Your task to perform on an android device: toggle priority inbox in the gmail app Image 0: 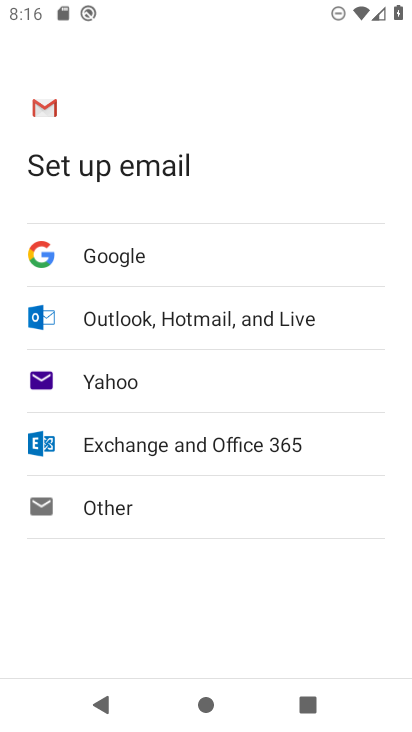
Step 0: press home button
Your task to perform on an android device: toggle priority inbox in the gmail app Image 1: 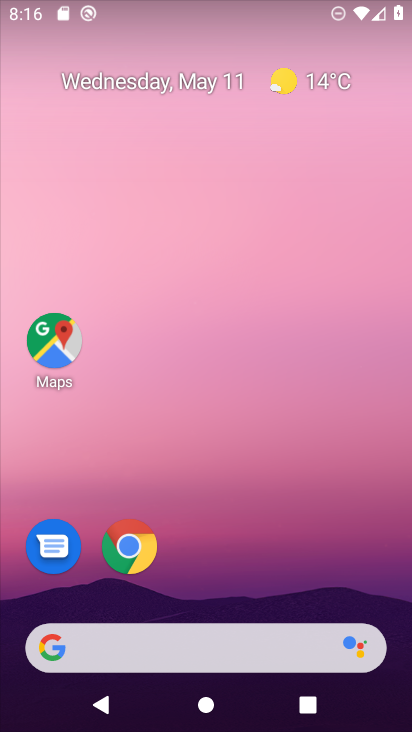
Step 1: drag from (204, 636) to (138, 41)
Your task to perform on an android device: toggle priority inbox in the gmail app Image 2: 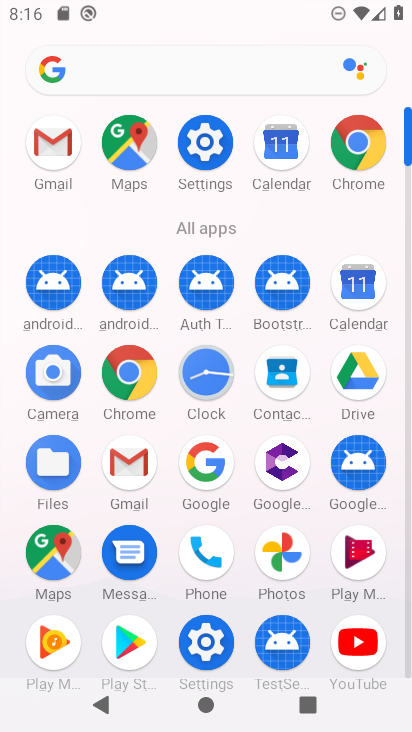
Step 2: click (44, 165)
Your task to perform on an android device: toggle priority inbox in the gmail app Image 3: 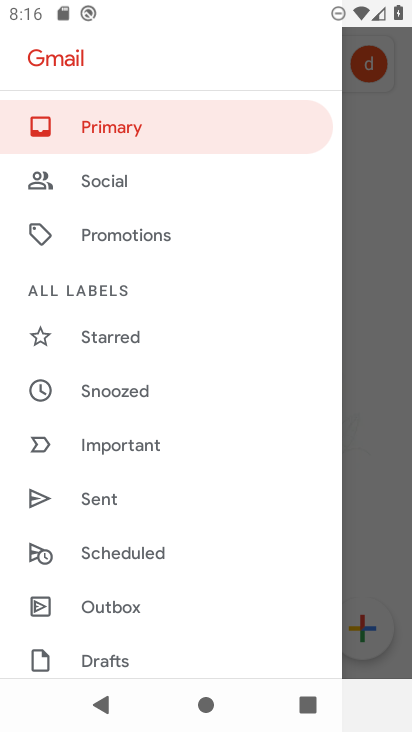
Step 3: drag from (111, 572) to (89, 153)
Your task to perform on an android device: toggle priority inbox in the gmail app Image 4: 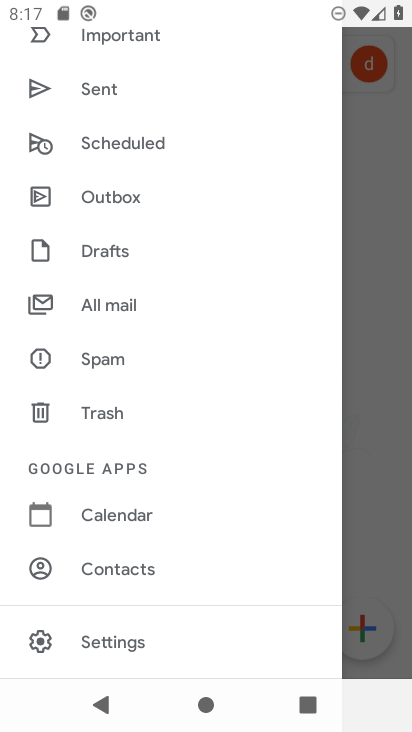
Step 4: click (119, 641)
Your task to perform on an android device: toggle priority inbox in the gmail app Image 5: 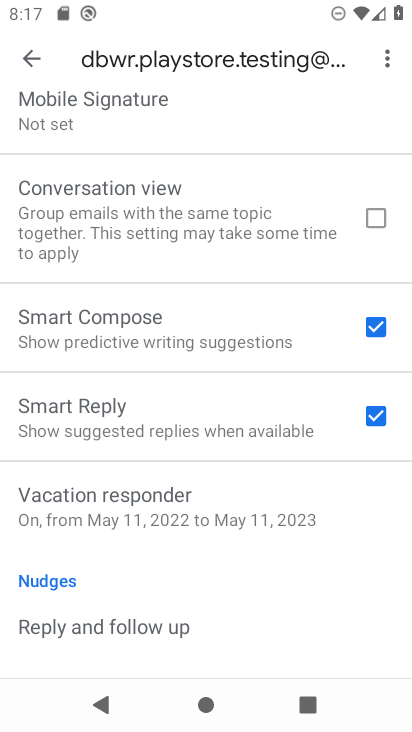
Step 5: drag from (130, 155) to (111, 724)
Your task to perform on an android device: toggle priority inbox in the gmail app Image 6: 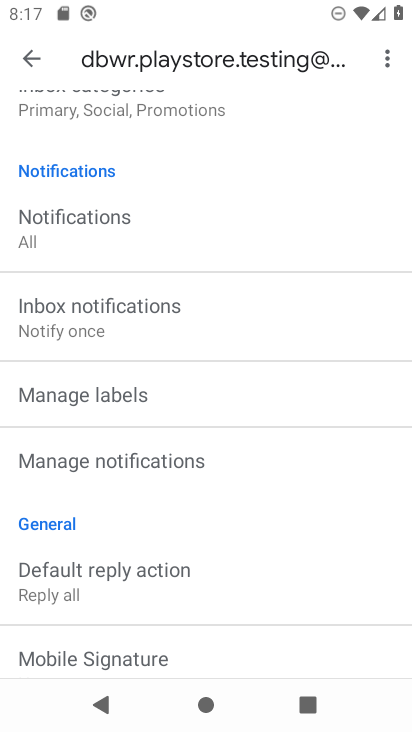
Step 6: drag from (158, 127) to (173, 557)
Your task to perform on an android device: toggle priority inbox in the gmail app Image 7: 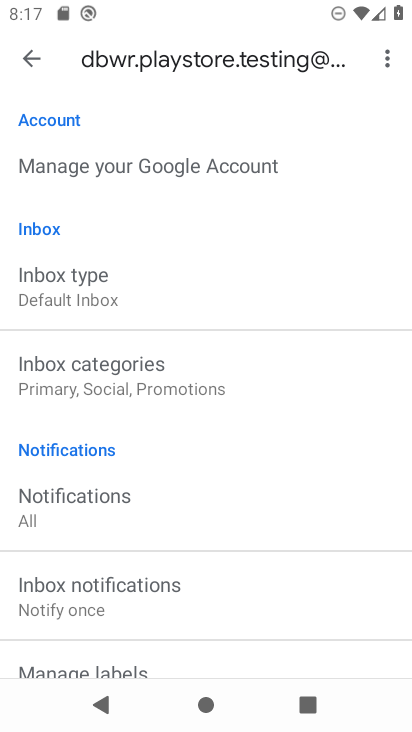
Step 7: click (109, 287)
Your task to perform on an android device: toggle priority inbox in the gmail app Image 8: 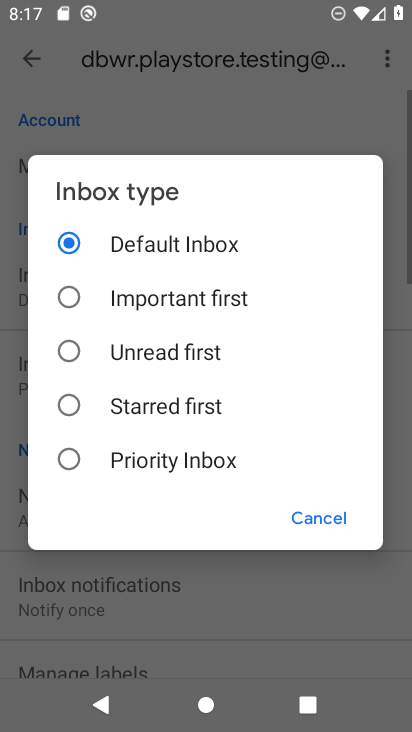
Step 8: click (130, 459)
Your task to perform on an android device: toggle priority inbox in the gmail app Image 9: 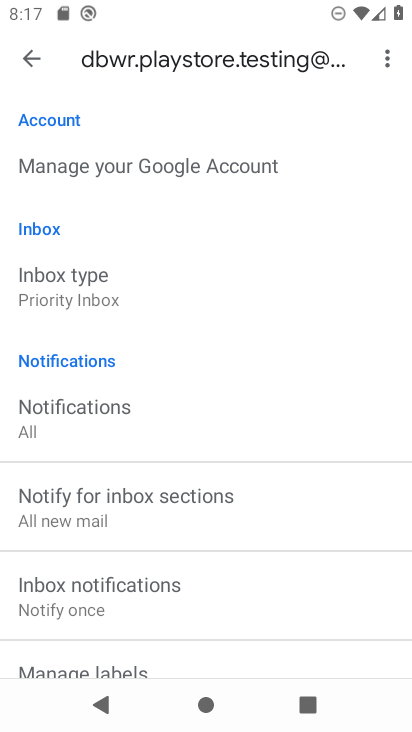
Step 9: task complete